Your task to perform on an android device: Go to eBay Image 0: 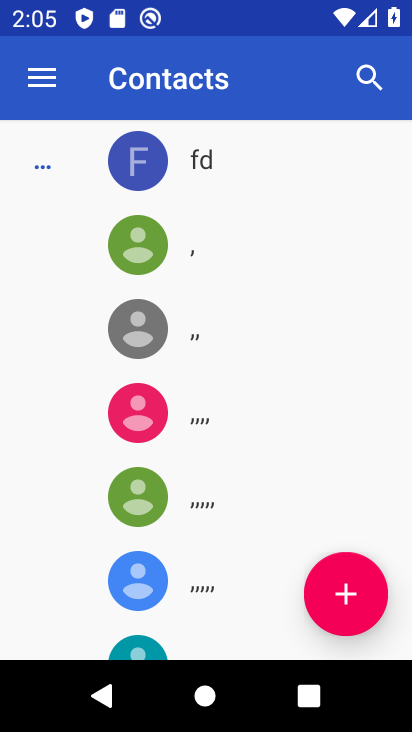
Step 0: press home button
Your task to perform on an android device: Go to eBay Image 1: 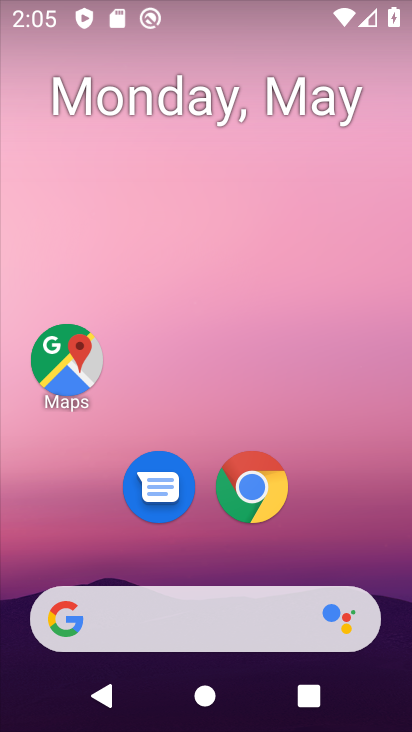
Step 1: click (253, 481)
Your task to perform on an android device: Go to eBay Image 2: 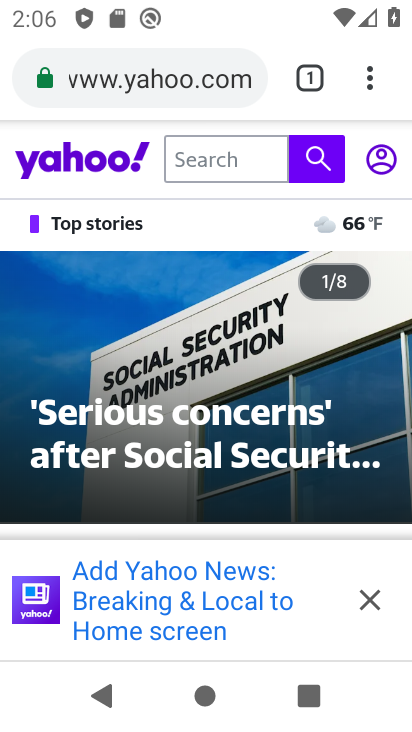
Step 2: click (321, 79)
Your task to perform on an android device: Go to eBay Image 3: 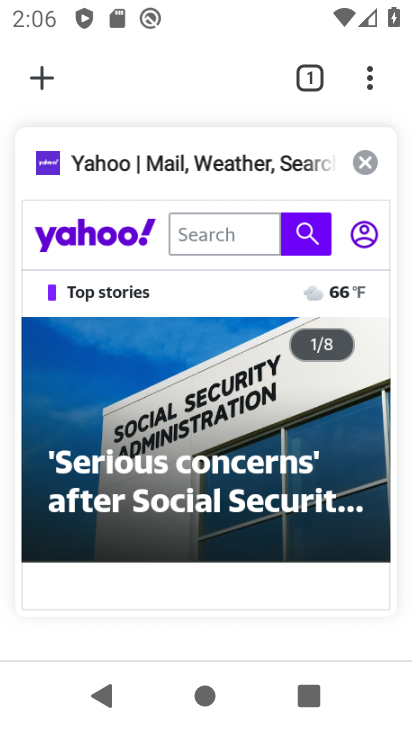
Step 3: click (51, 79)
Your task to perform on an android device: Go to eBay Image 4: 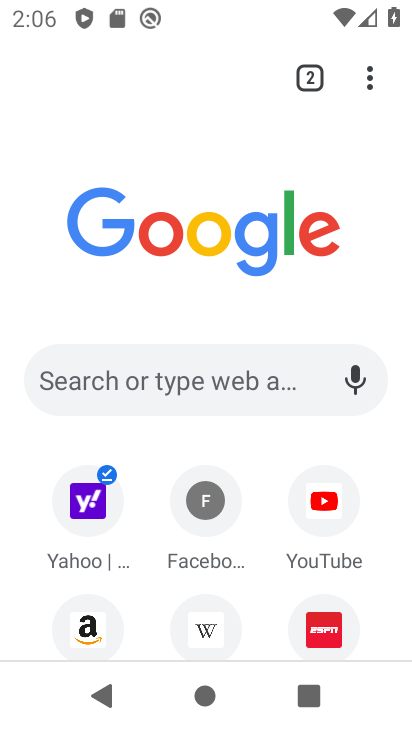
Step 4: click (223, 379)
Your task to perform on an android device: Go to eBay Image 5: 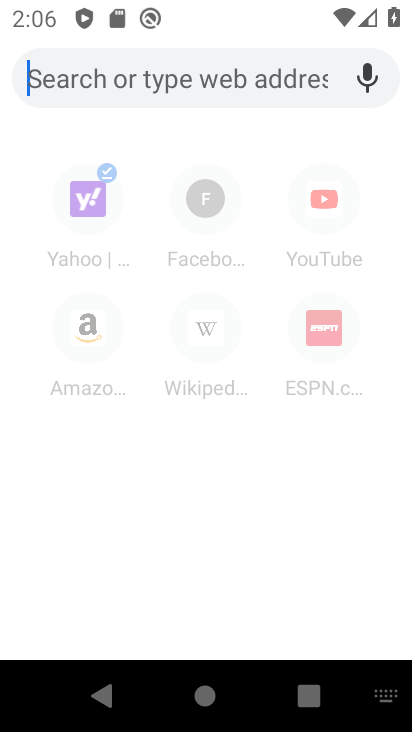
Step 5: type "ebay"
Your task to perform on an android device: Go to eBay Image 6: 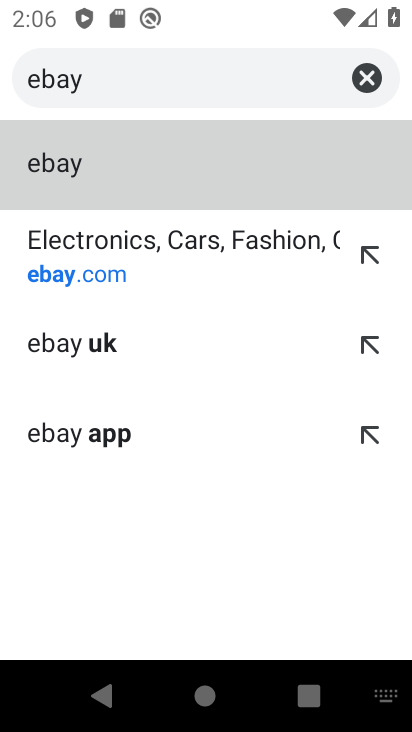
Step 6: click (93, 279)
Your task to perform on an android device: Go to eBay Image 7: 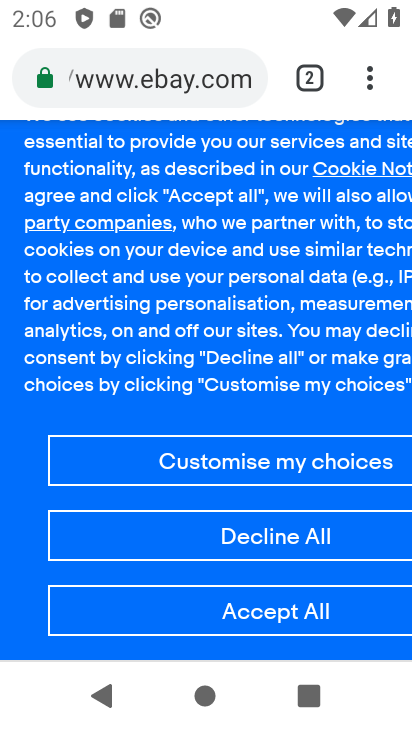
Step 7: task complete